Your task to perform on an android device: Open settings Image 0: 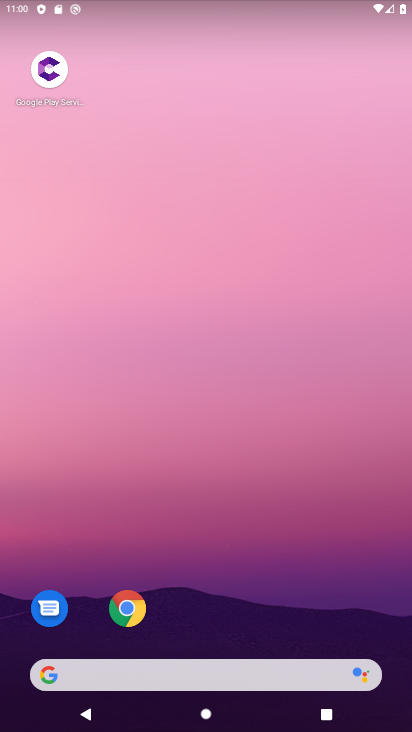
Step 0: press home button
Your task to perform on an android device: Open settings Image 1: 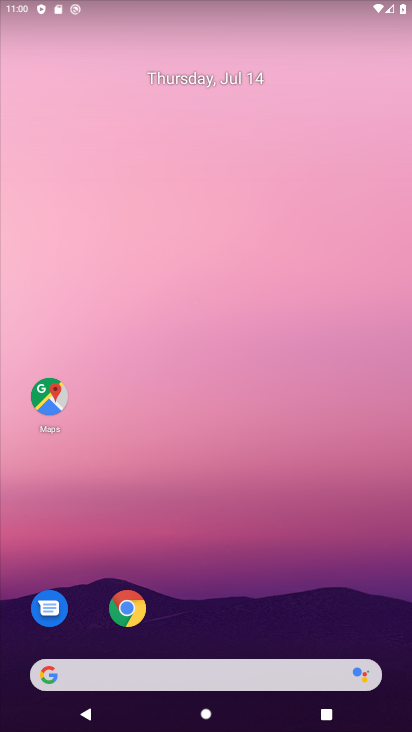
Step 1: drag from (267, 615) to (270, 86)
Your task to perform on an android device: Open settings Image 2: 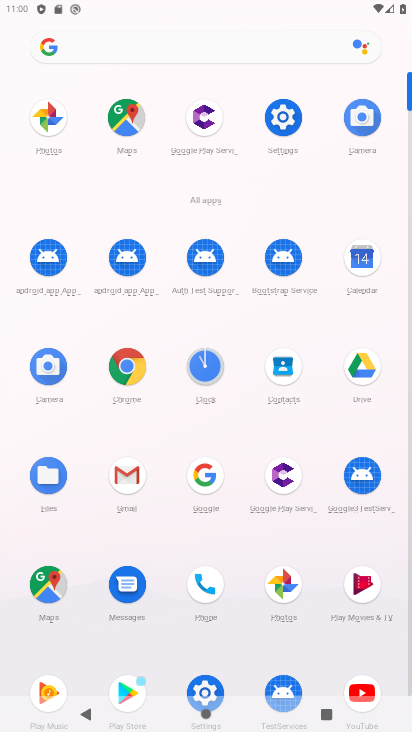
Step 2: click (280, 107)
Your task to perform on an android device: Open settings Image 3: 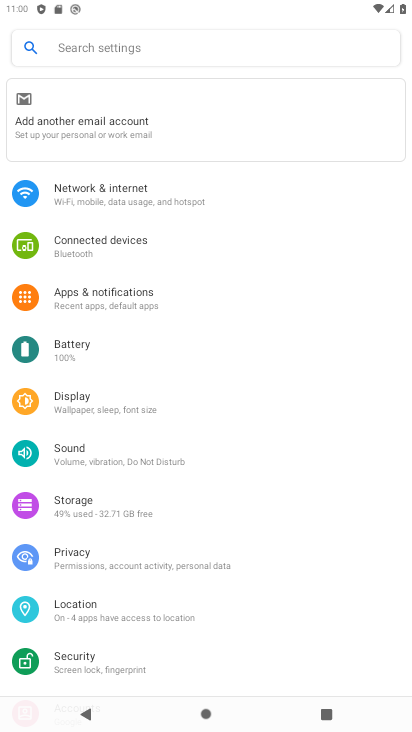
Step 3: task complete